Your task to perform on an android device: check battery use Image 0: 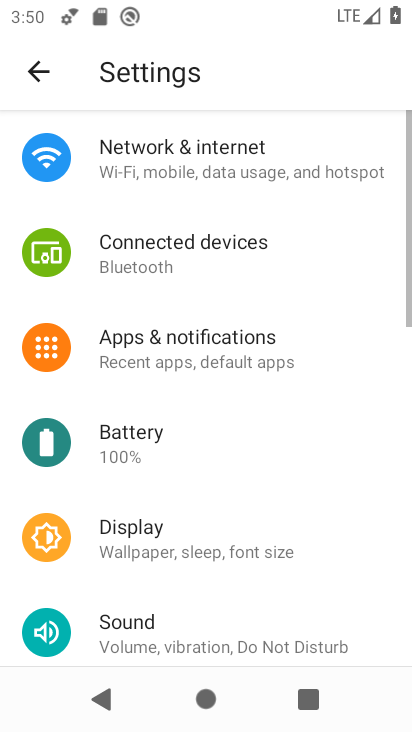
Step 0: click (194, 433)
Your task to perform on an android device: check battery use Image 1: 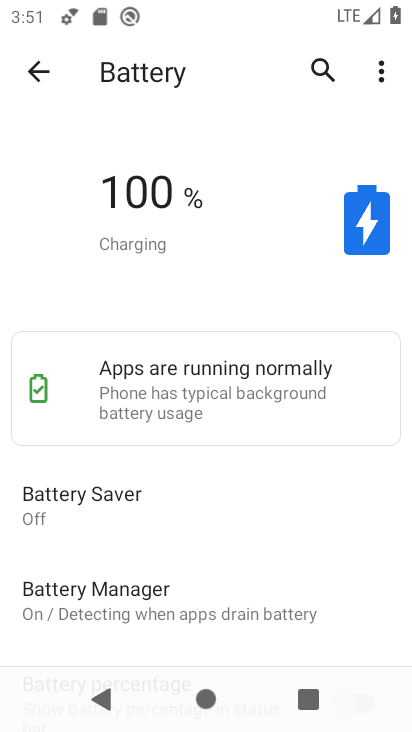
Step 1: click (380, 73)
Your task to perform on an android device: check battery use Image 2: 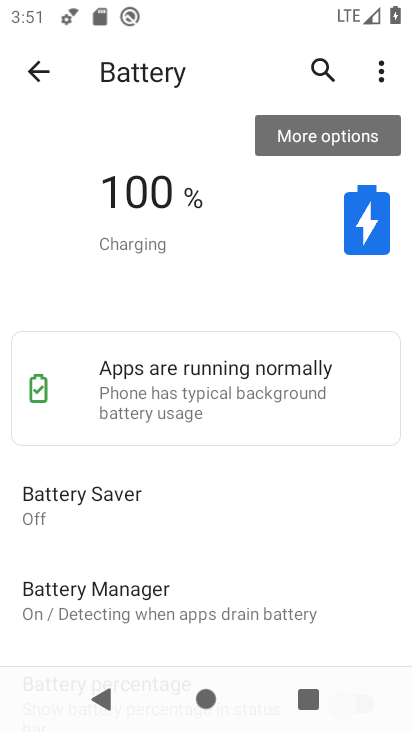
Step 2: click (380, 73)
Your task to perform on an android device: check battery use Image 3: 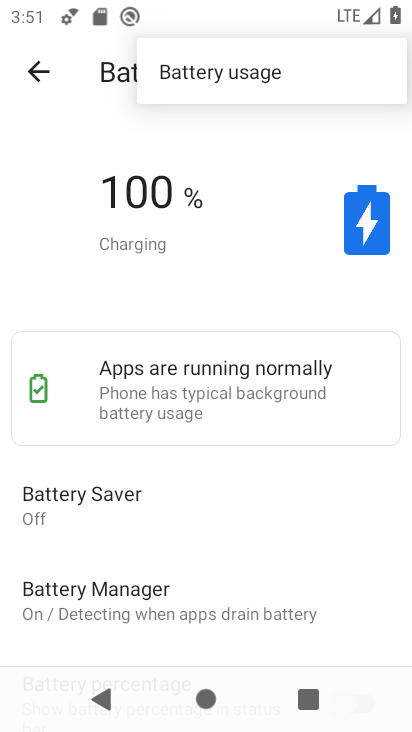
Step 3: click (380, 73)
Your task to perform on an android device: check battery use Image 4: 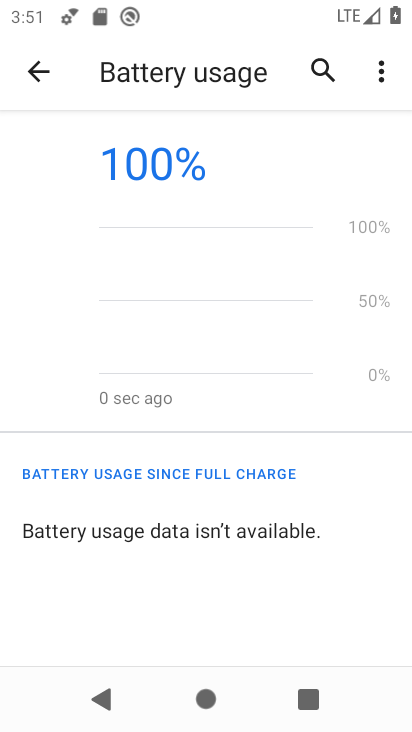
Step 4: task complete